Your task to perform on an android device: Clear the cart on ebay.com. Add logitech g502 to the cart on ebay.com Image 0: 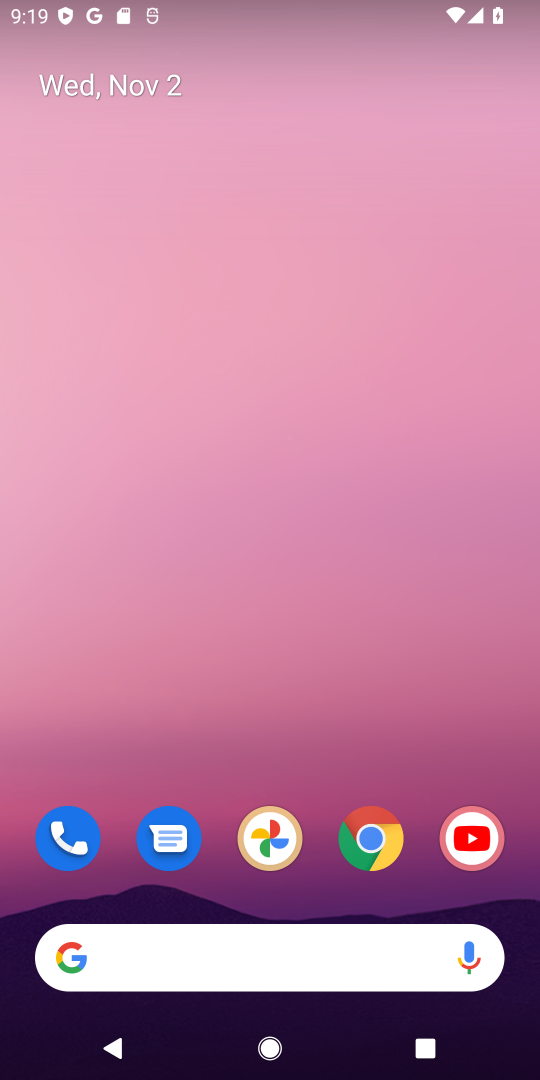
Step 0: click (366, 836)
Your task to perform on an android device: Clear the cart on ebay.com. Add logitech g502 to the cart on ebay.com Image 1: 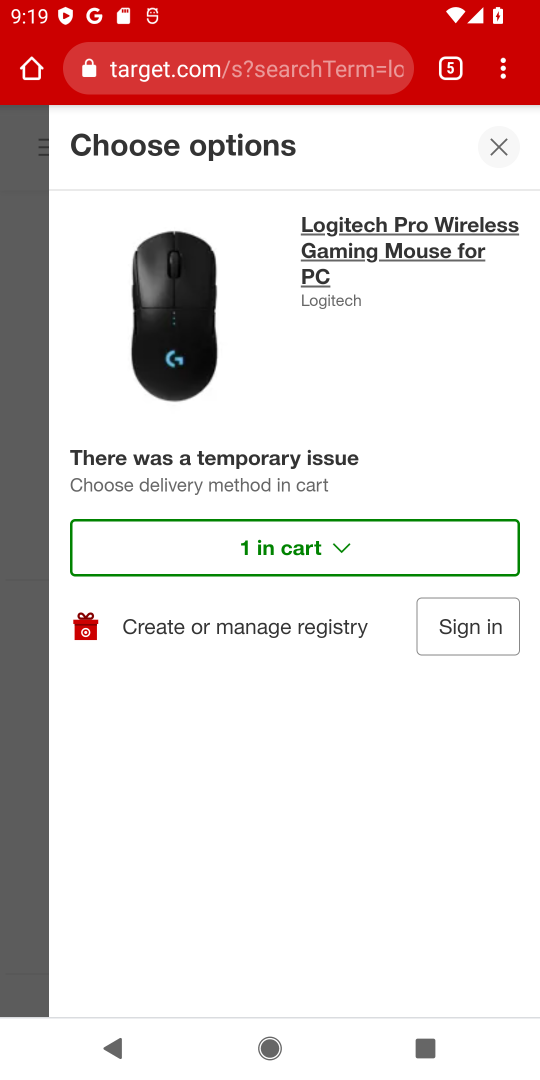
Step 1: click (449, 65)
Your task to perform on an android device: Clear the cart on ebay.com. Add logitech g502 to the cart on ebay.com Image 2: 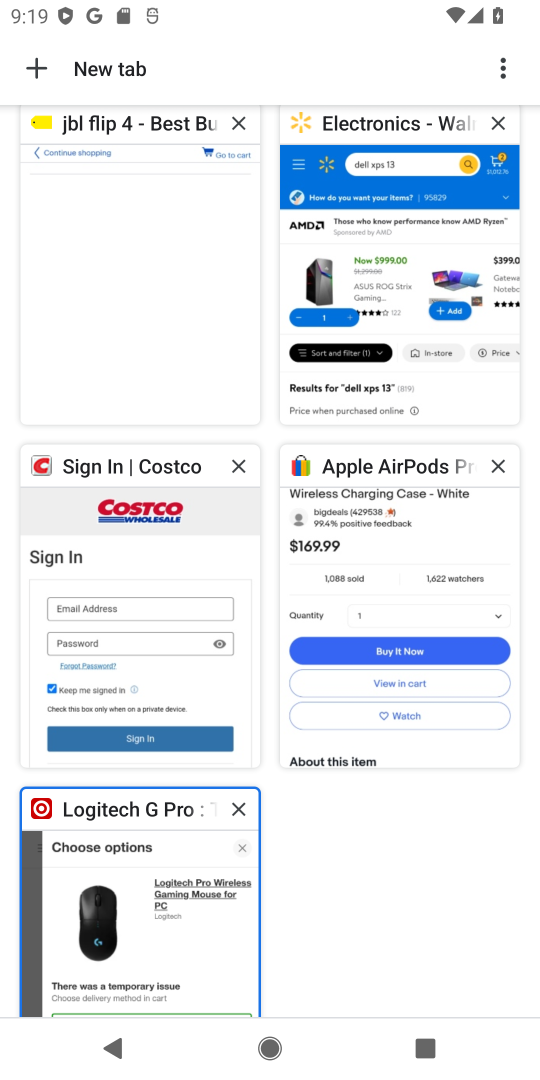
Step 2: click (443, 563)
Your task to perform on an android device: Clear the cart on ebay.com. Add logitech g502 to the cart on ebay.com Image 3: 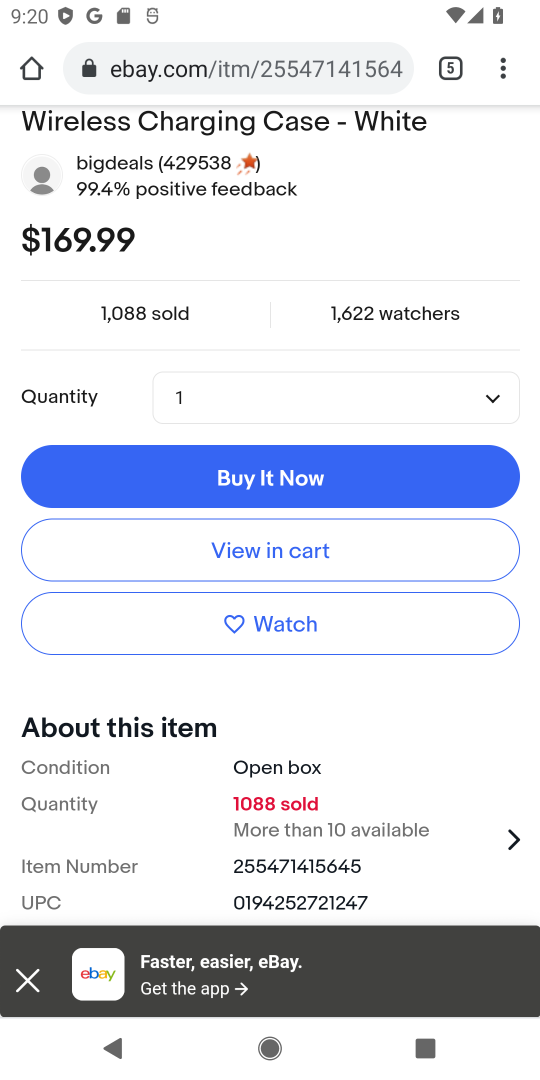
Step 3: drag from (357, 263) to (378, 697)
Your task to perform on an android device: Clear the cart on ebay.com. Add logitech g502 to the cart on ebay.com Image 4: 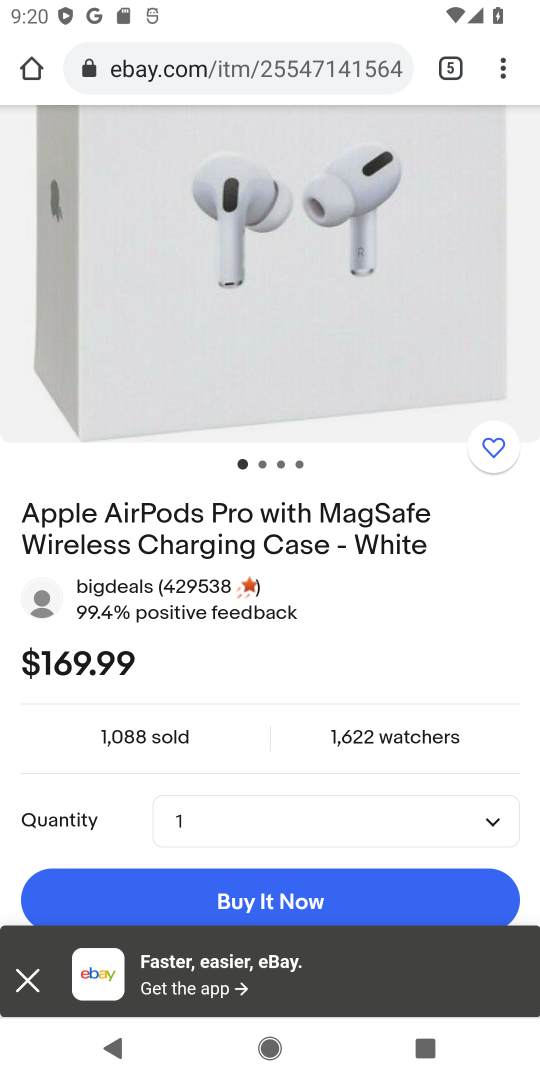
Step 4: drag from (375, 478) to (442, 860)
Your task to perform on an android device: Clear the cart on ebay.com. Add logitech g502 to the cart on ebay.com Image 5: 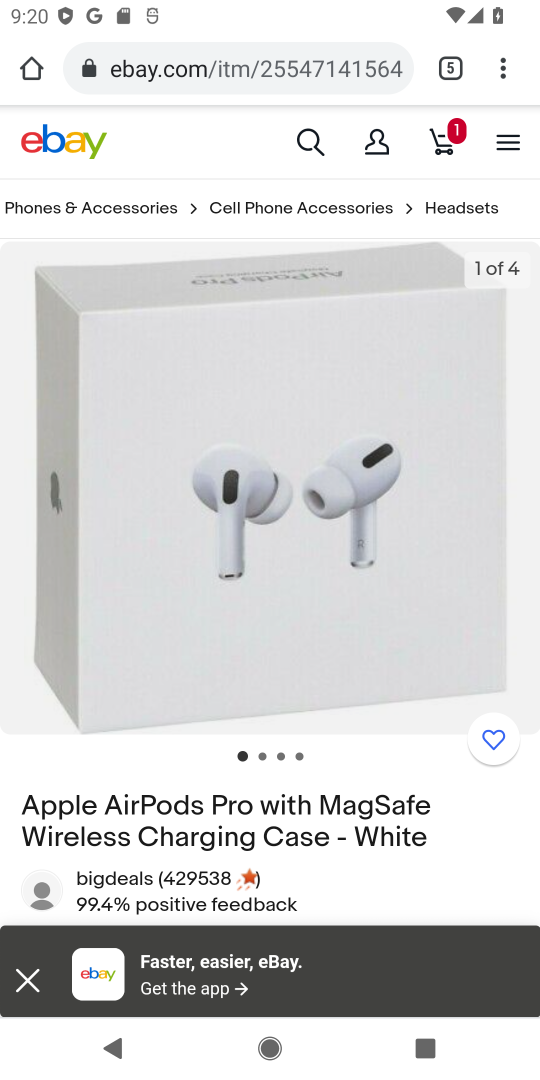
Step 5: click (302, 141)
Your task to perform on an android device: Clear the cart on ebay.com. Add logitech g502 to the cart on ebay.com Image 6: 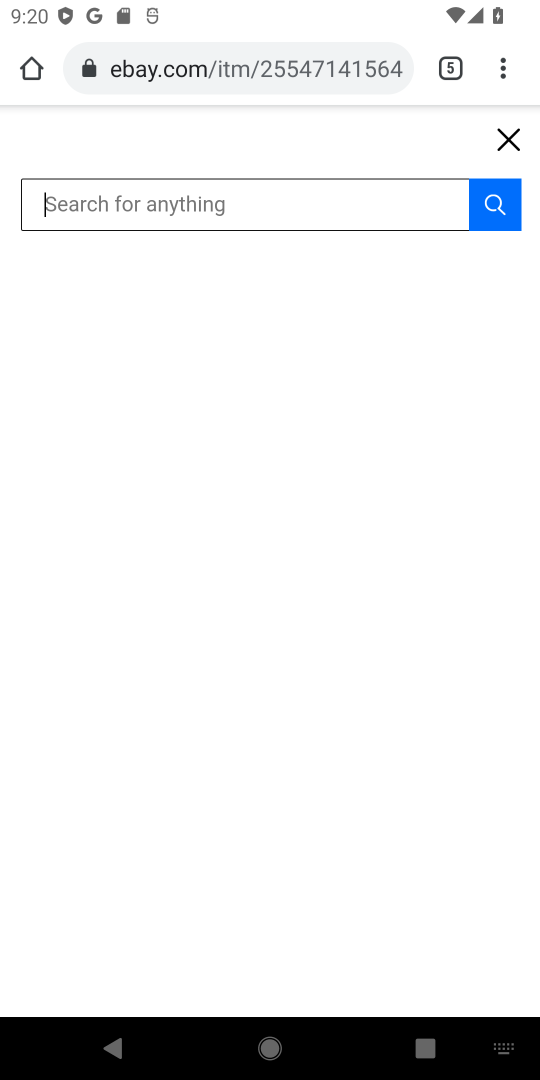
Step 6: click (273, 211)
Your task to perform on an android device: Clear the cart on ebay.com. Add logitech g502 to the cart on ebay.com Image 7: 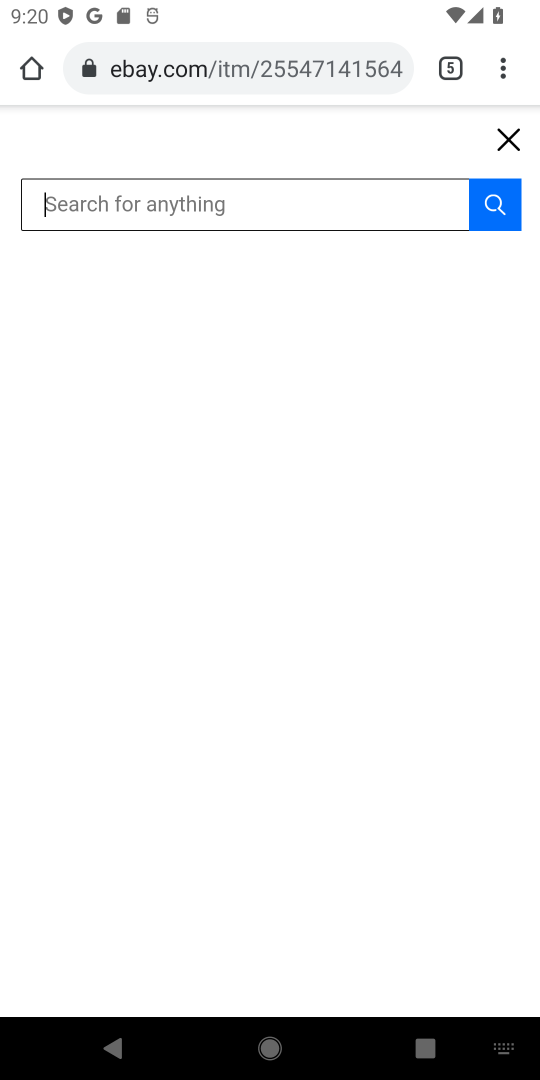
Step 7: type "logitech g502"
Your task to perform on an android device: Clear the cart on ebay.com. Add logitech g502 to the cart on ebay.com Image 8: 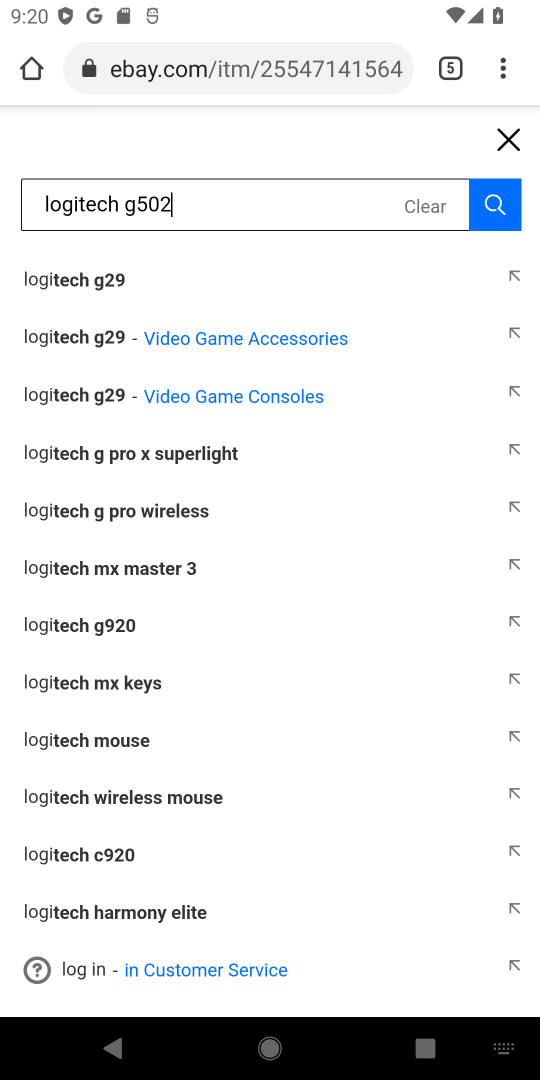
Step 8: click (94, 338)
Your task to perform on an android device: Clear the cart on ebay.com. Add logitech g502 to the cart on ebay.com Image 9: 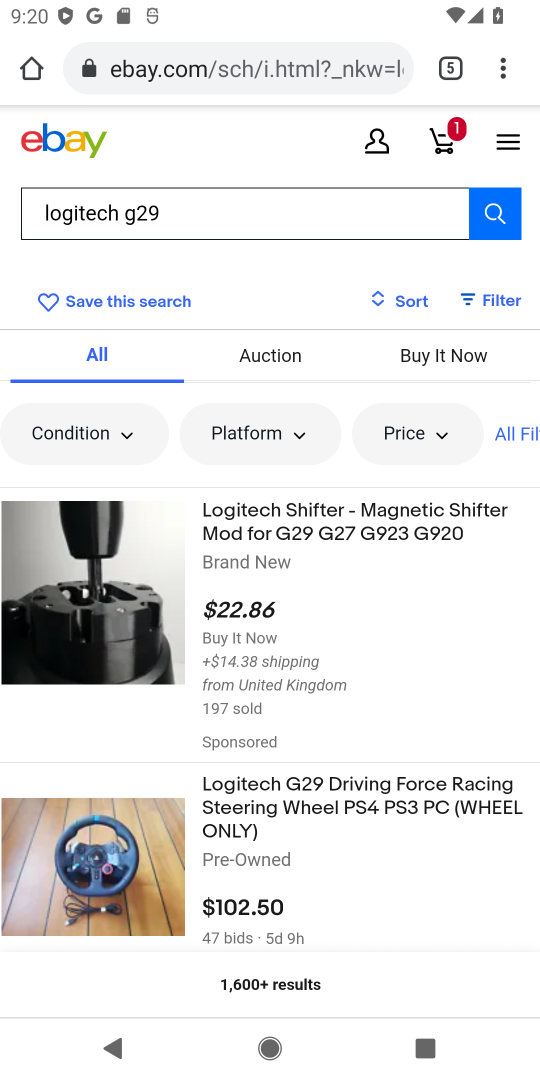
Step 9: click (313, 778)
Your task to perform on an android device: Clear the cart on ebay.com. Add logitech g502 to the cart on ebay.com Image 10: 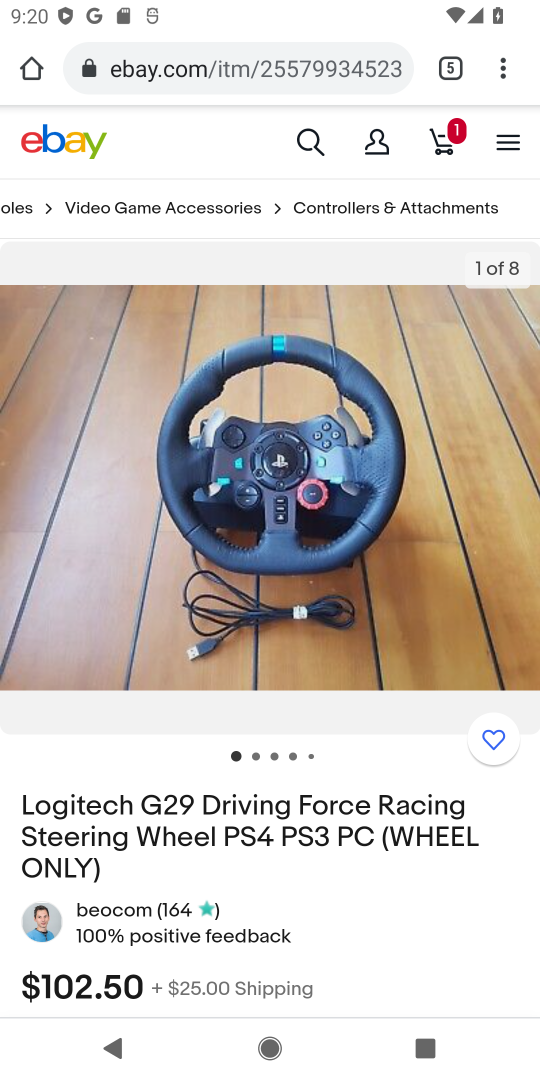
Step 10: drag from (304, 911) to (345, 327)
Your task to perform on an android device: Clear the cart on ebay.com. Add logitech g502 to the cart on ebay.com Image 11: 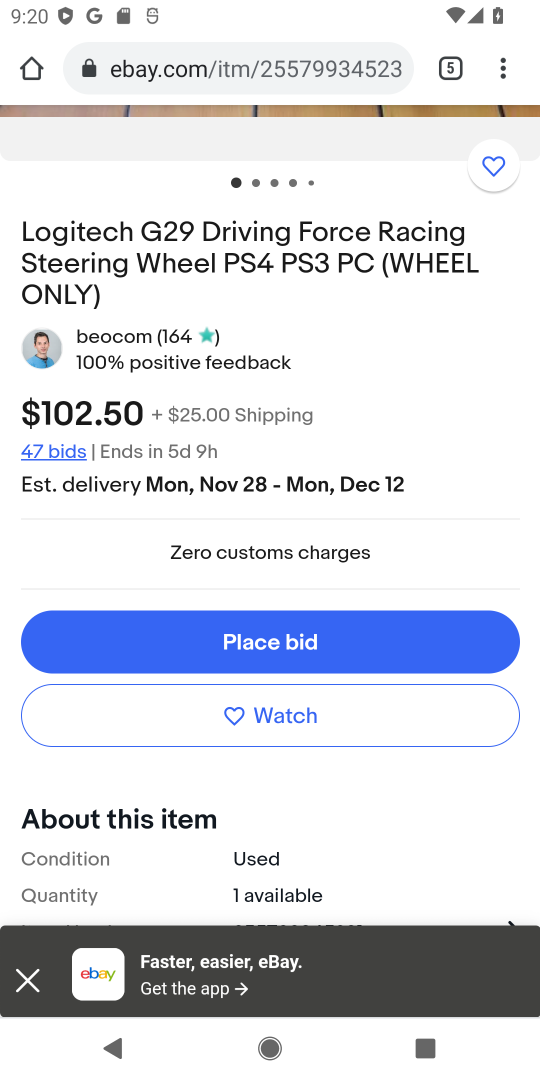
Step 11: press back button
Your task to perform on an android device: Clear the cart on ebay.com. Add logitech g502 to the cart on ebay.com Image 12: 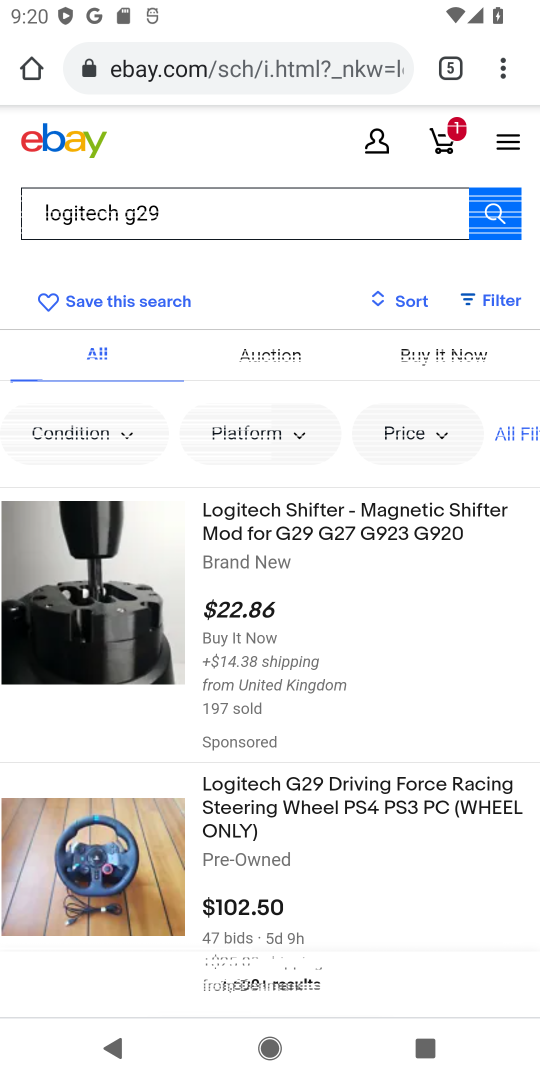
Step 12: drag from (404, 883) to (434, 419)
Your task to perform on an android device: Clear the cart on ebay.com. Add logitech g502 to the cart on ebay.com Image 13: 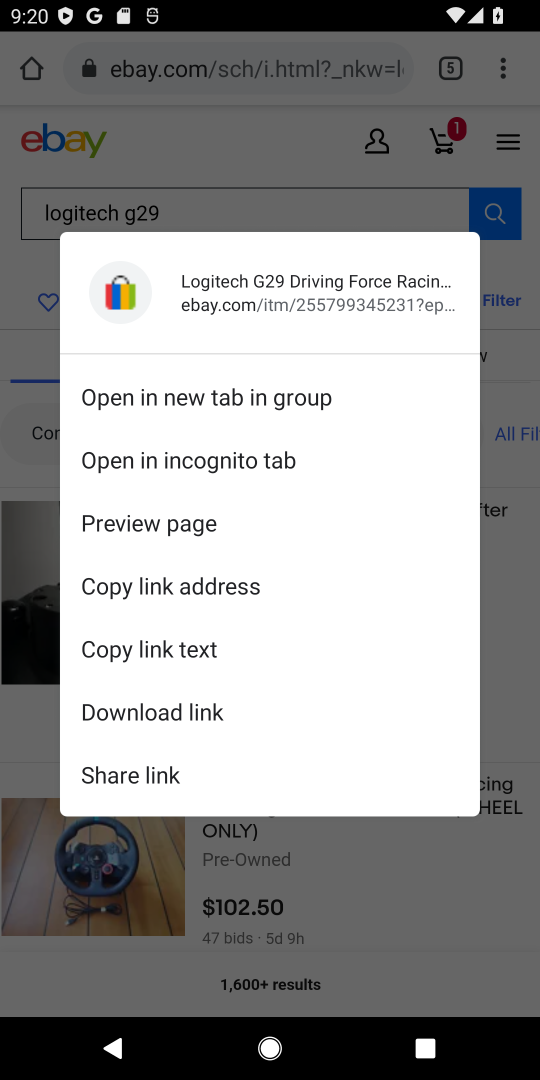
Step 13: click (343, 903)
Your task to perform on an android device: Clear the cart on ebay.com. Add logitech g502 to the cart on ebay.com Image 14: 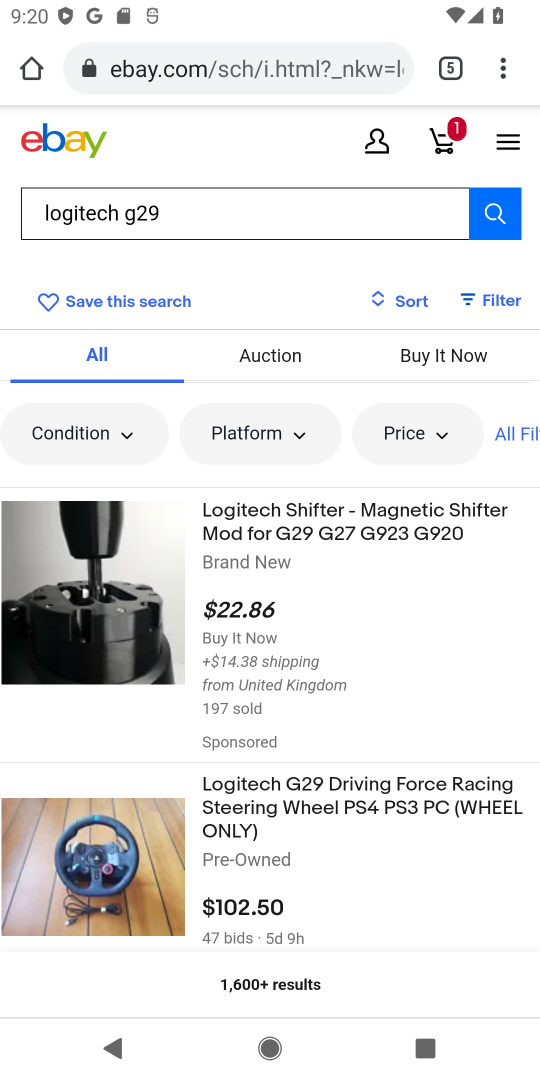
Step 14: drag from (343, 903) to (473, 149)
Your task to perform on an android device: Clear the cart on ebay.com. Add logitech g502 to the cart on ebay.com Image 15: 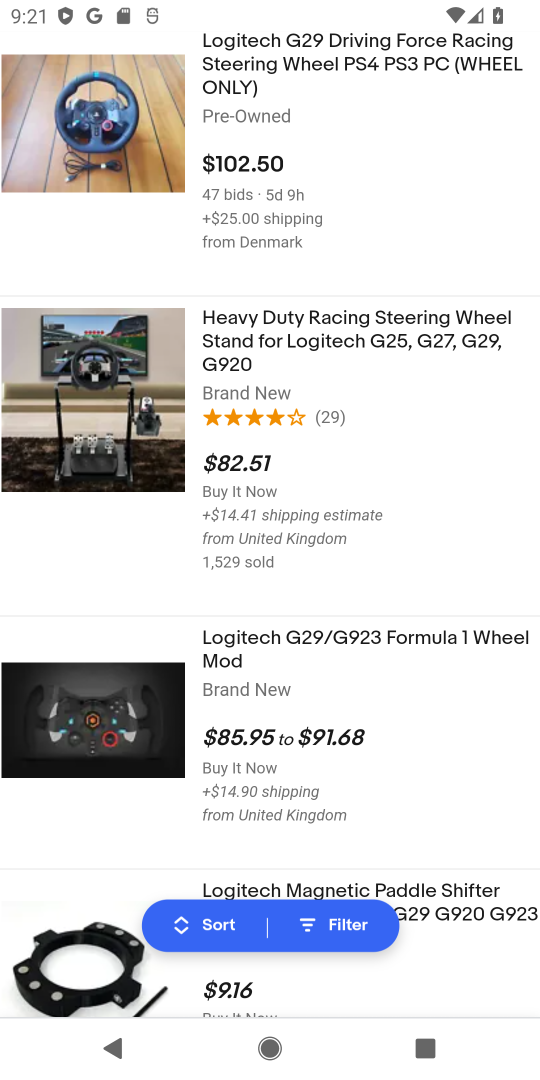
Step 15: click (367, 682)
Your task to perform on an android device: Clear the cart on ebay.com. Add logitech g502 to the cart on ebay.com Image 16: 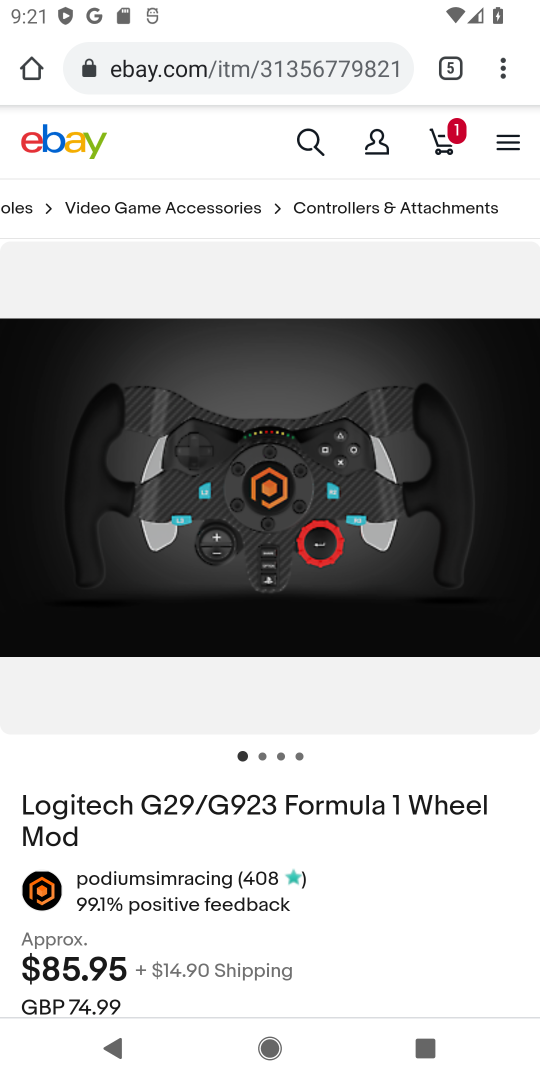
Step 16: drag from (372, 818) to (408, 323)
Your task to perform on an android device: Clear the cart on ebay.com. Add logitech g502 to the cart on ebay.com Image 17: 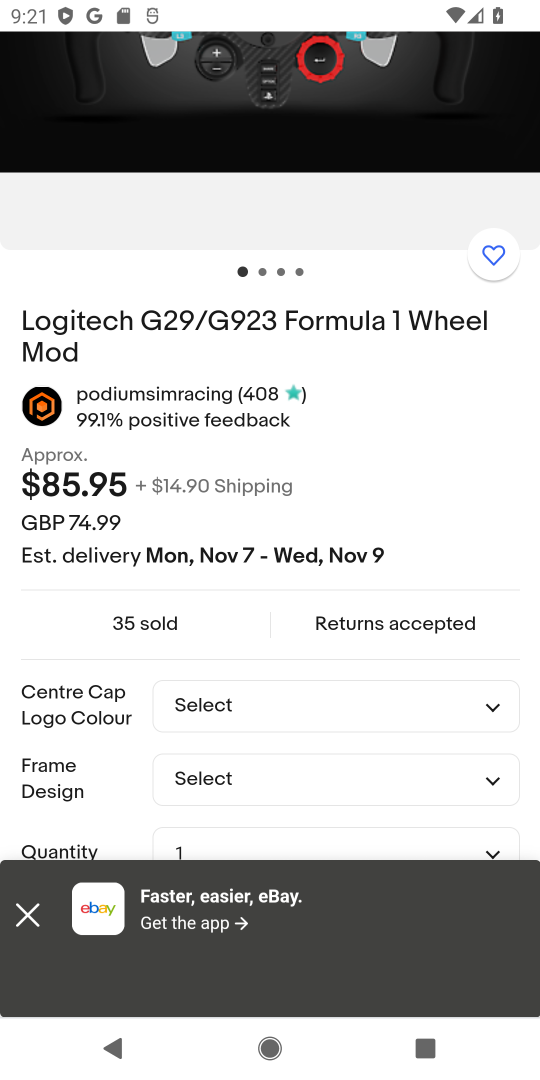
Step 17: drag from (385, 696) to (442, 31)
Your task to perform on an android device: Clear the cart on ebay.com. Add logitech g502 to the cart on ebay.com Image 18: 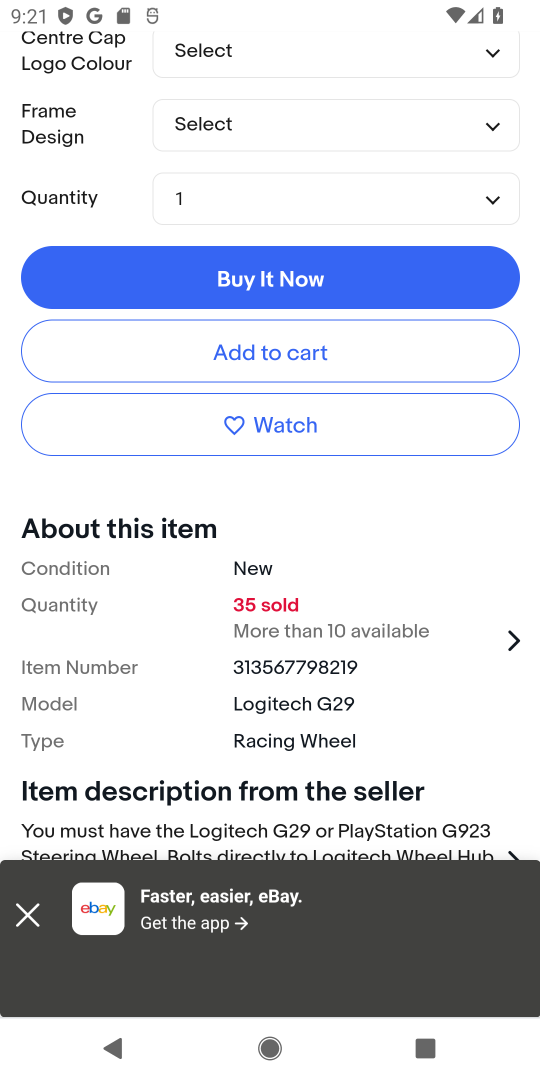
Step 18: click (26, 914)
Your task to perform on an android device: Clear the cart on ebay.com. Add logitech g502 to the cart on ebay.com Image 19: 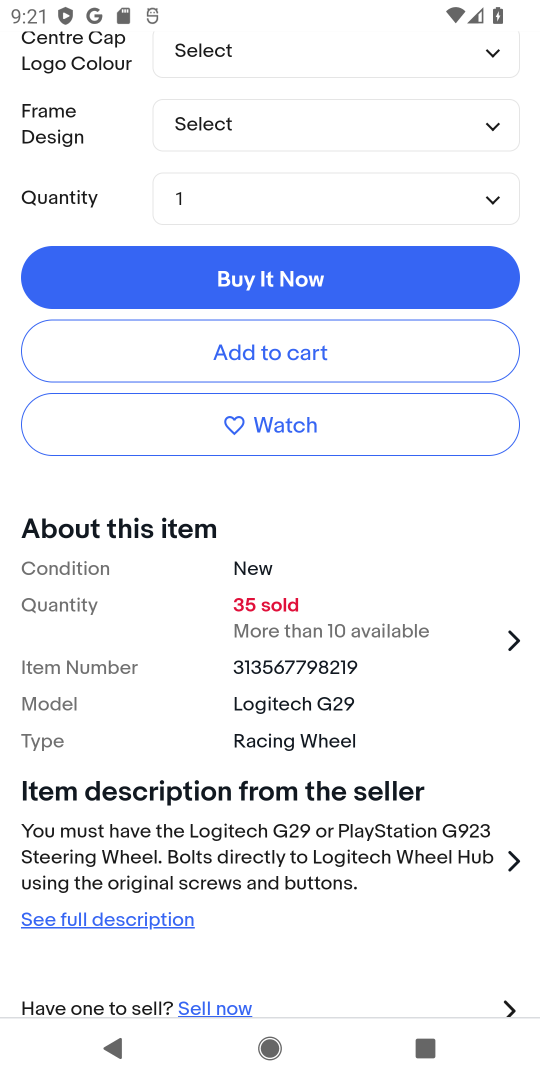
Step 19: click (339, 355)
Your task to perform on an android device: Clear the cart on ebay.com. Add logitech g502 to the cart on ebay.com Image 20: 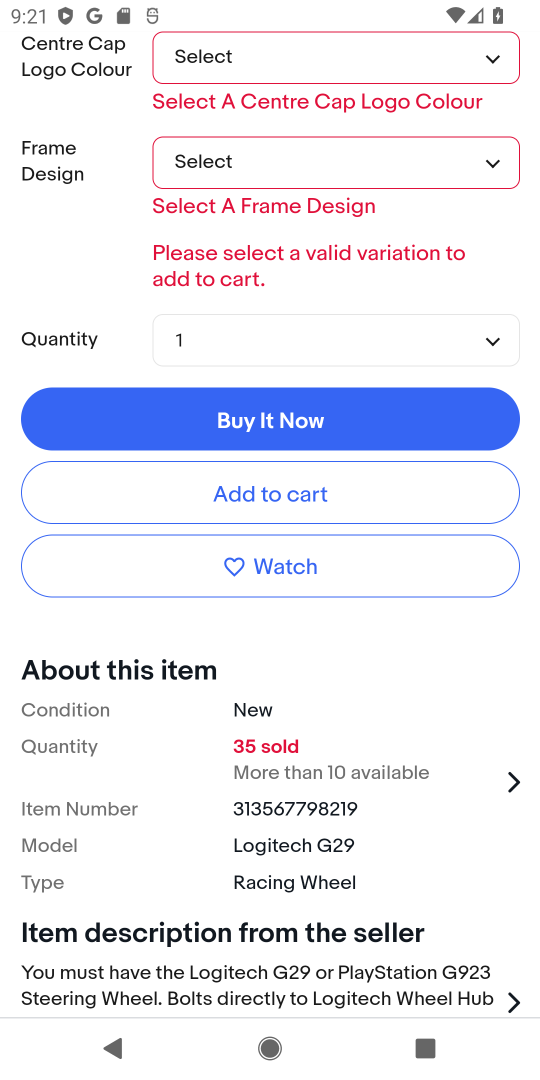
Step 20: click (484, 161)
Your task to perform on an android device: Clear the cart on ebay.com. Add logitech g502 to the cart on ebay.com Image 21: 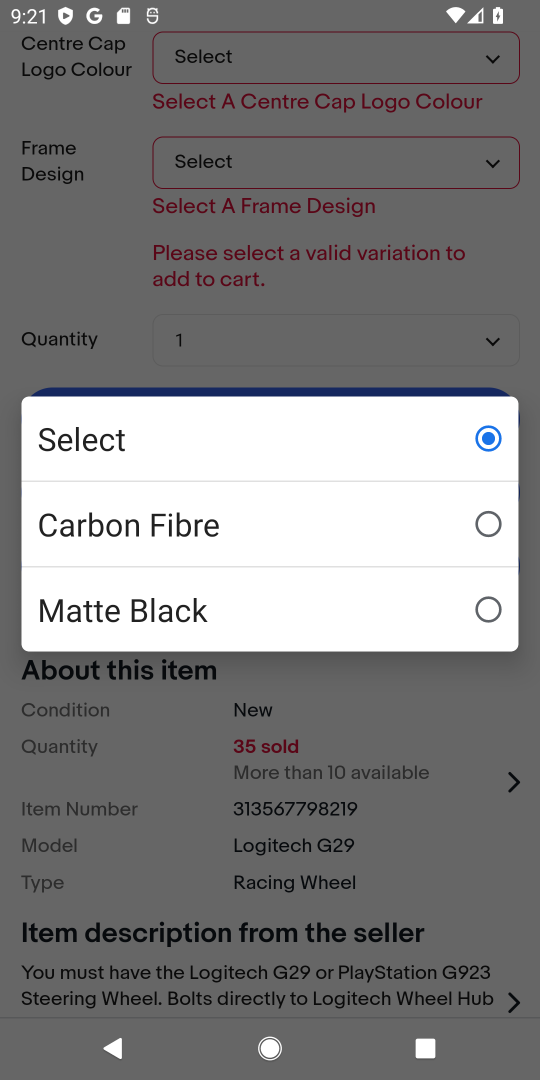
Step 21: click (237, 532)
Your task to perform on an android device: Clear the cart on ebay.com. Add logitech g502 to the cart on ebay.com Image 22: 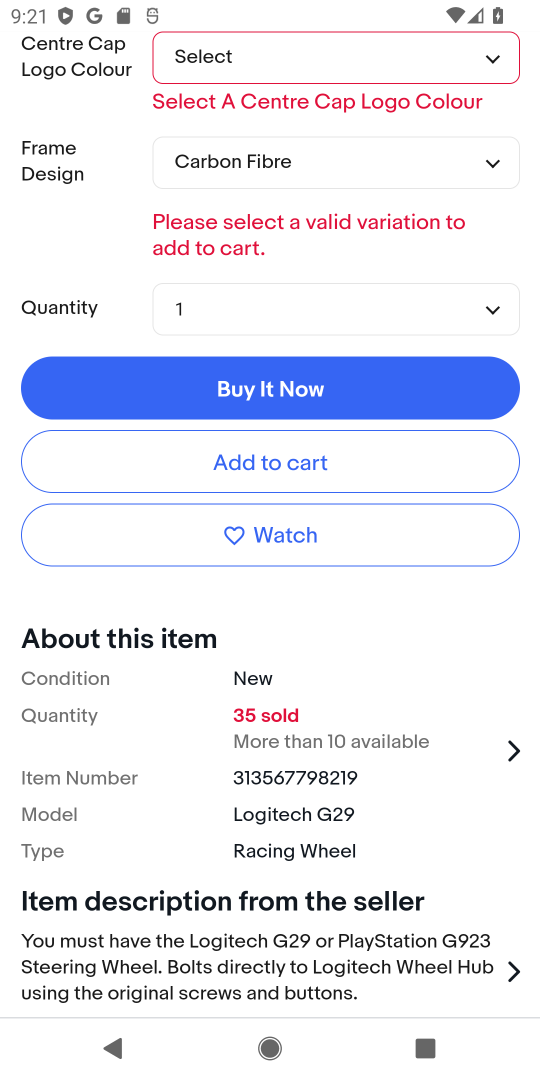
Step 22: click (389, 53)
Your task to perform on an android device: Clear the cart on ebay.com. Add logitech g502 to the cart on ebay.com Image 23: 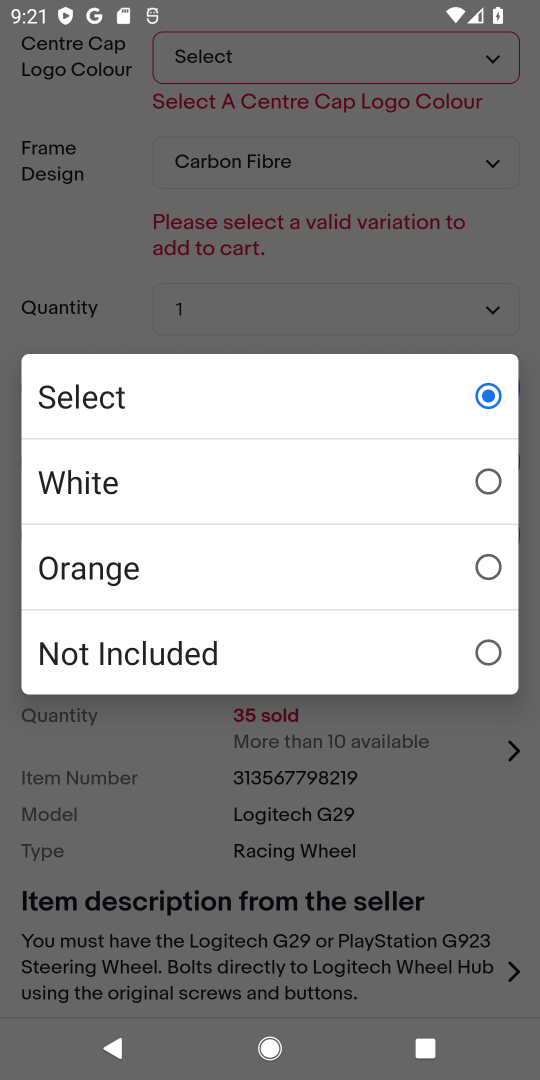
Step 23: click (289, 576)
Your task to perform on an android device: Clear the cart on ebay.com. Add logitech g502 to the cart on ebay.com Image 24: 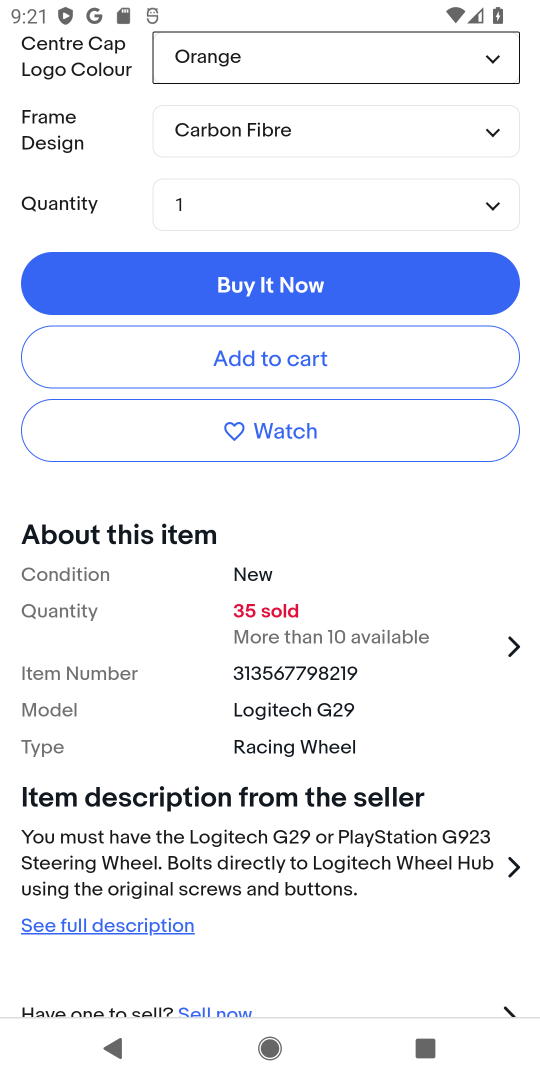
Step 24: drag from (405, 548) to (379, 1019)
Your task to perform on an android device: Clear the cart on ebay.com. Add logitech g502 to the cart on ebay.com Image 25: 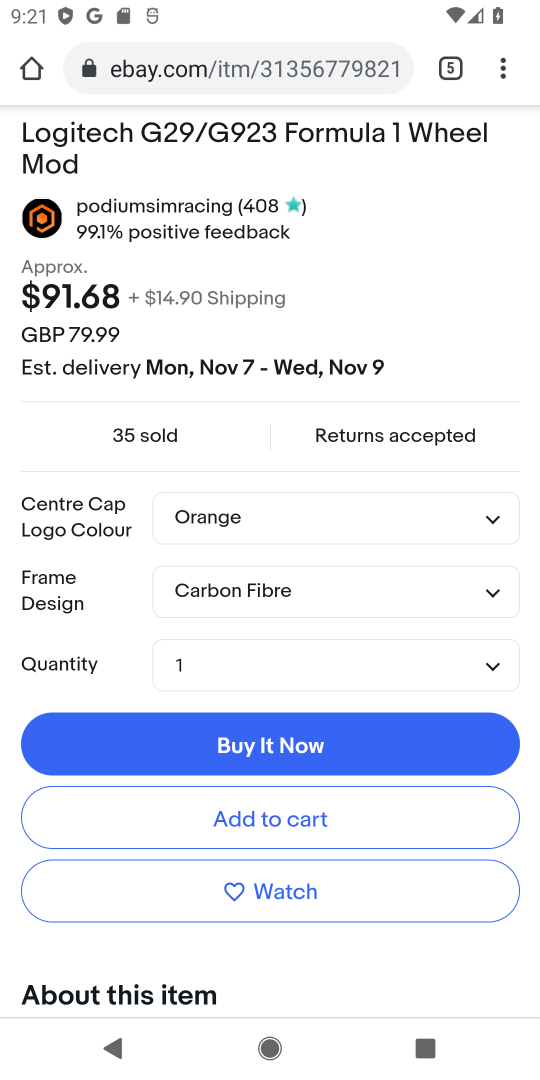
Step 25: drag from (414, 936) to (460, 432)
Your task to perform on an android device: Clear the cart on ebay.com. Add logitech g502 to the cart on ebay.com Image 26: 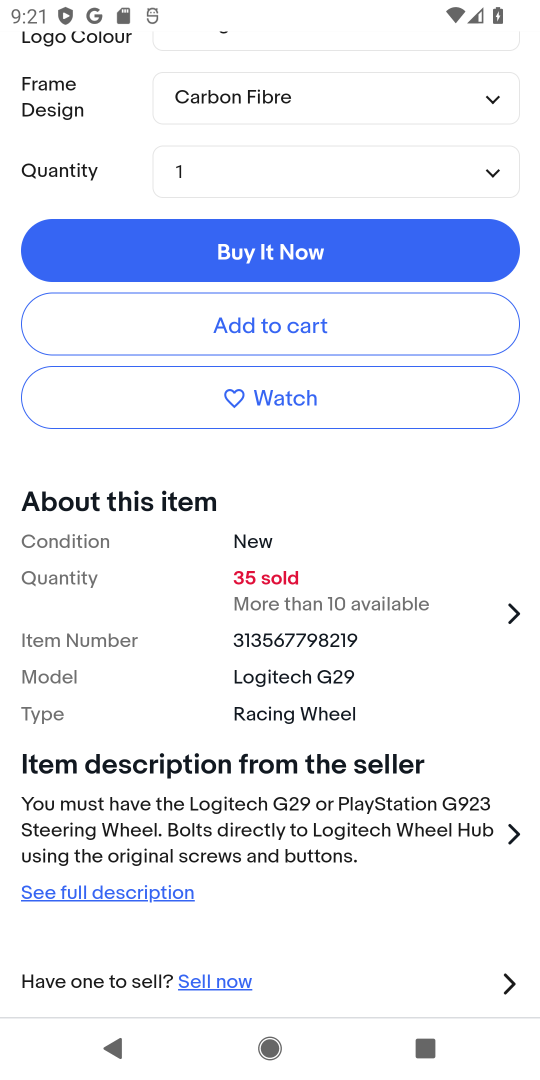
Step 26: click (403, 329)
Your task to perform on an android device: Clear the cart on ebay.com. Add logitech g502 to the cart on ebay.com Image 27: 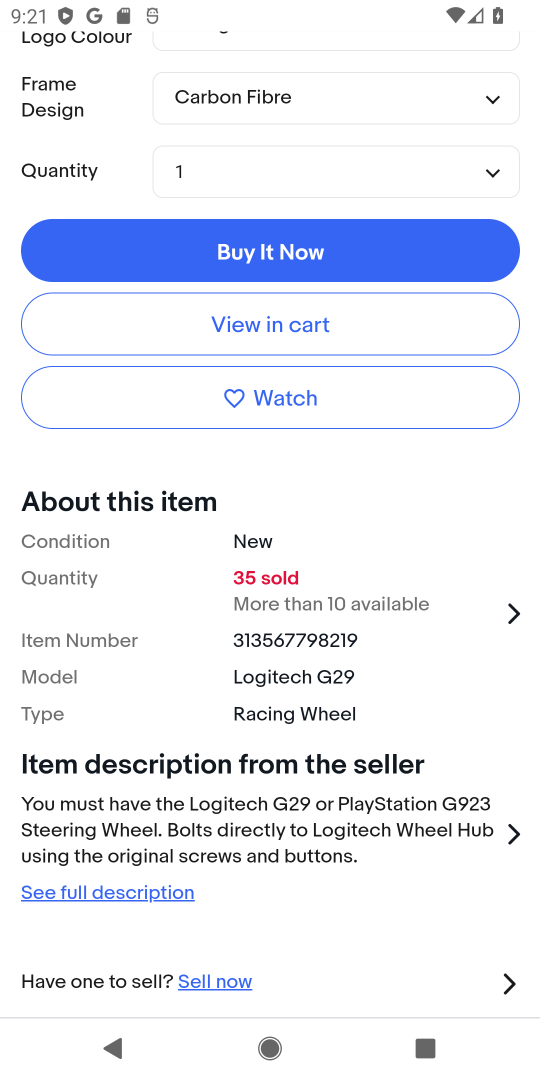
Step 27: click (403, 329)
Your task to perform on an android device: Clear the cart on ebay.com. Add logitech g502 to the cart on ebay.com Image 28: 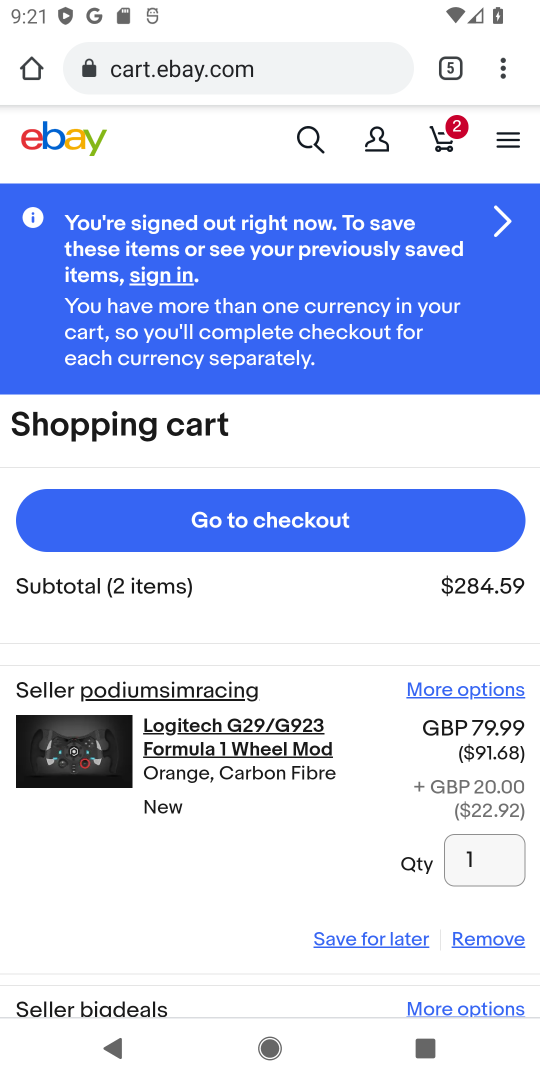
Step 28: drag from (331, 814) to (394, 365)
Your task to perform on an android device: Clear the cart on ebay.com. Add logitech g502 to the cart on ebay.com Image 29: 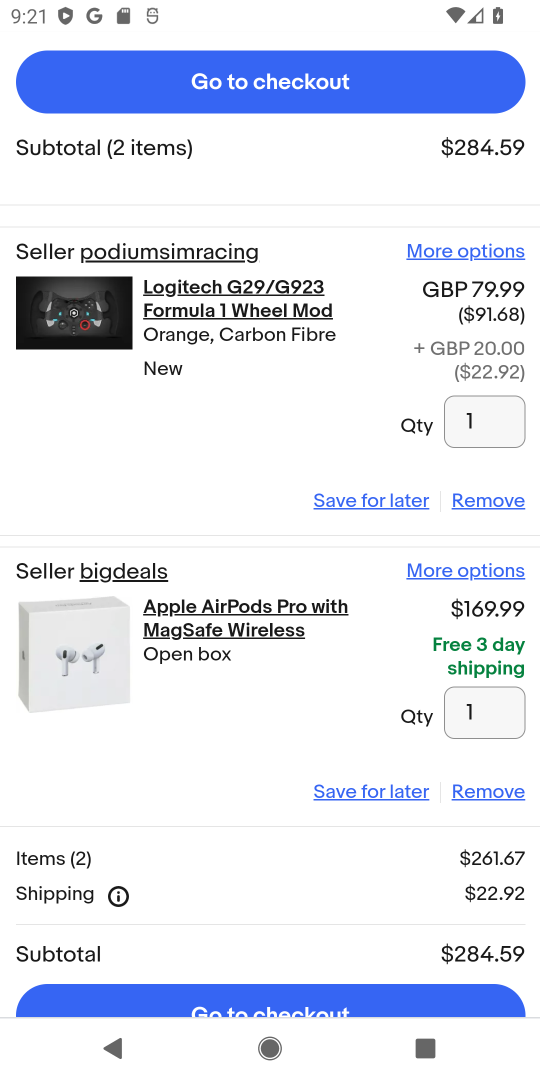
Step 29: click (478, 783)
Your task to perform on an android device: Clear the cart on ebay.com. Add logitech g502 to the cart on ebay.com Image 30: 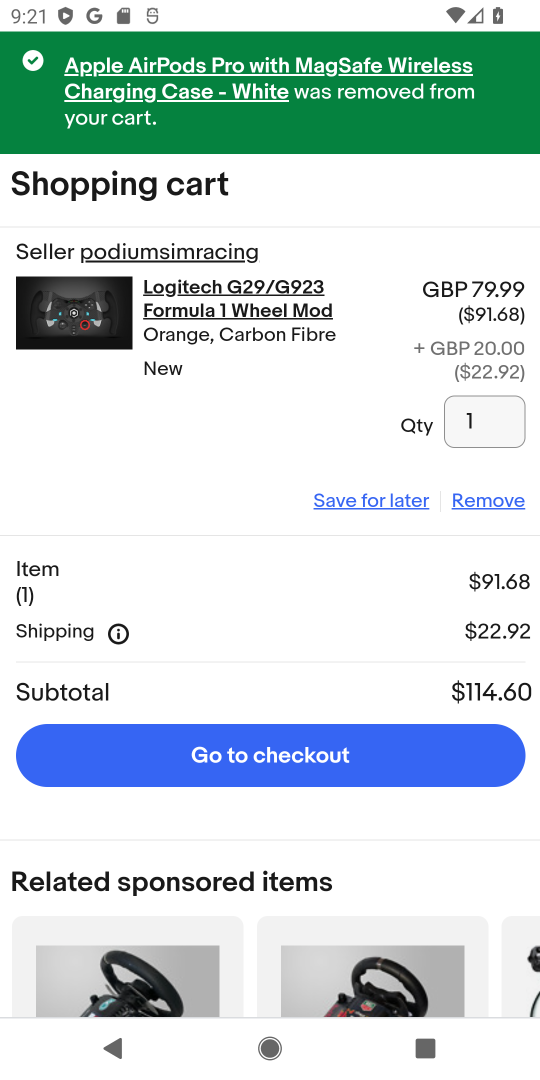
Step 30: task complete